Your task to perform on an android device: Open calendar and show me the second week of next month Image 0: 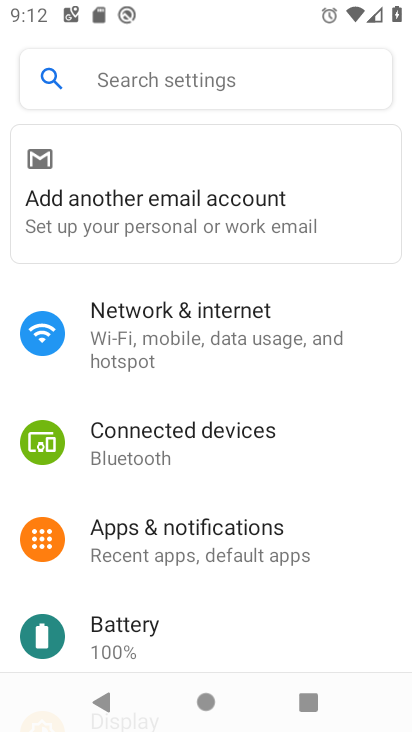
Step 0: press home button
Your task to perform on an android device: Open calendar and show me the second week of next month Image 1: 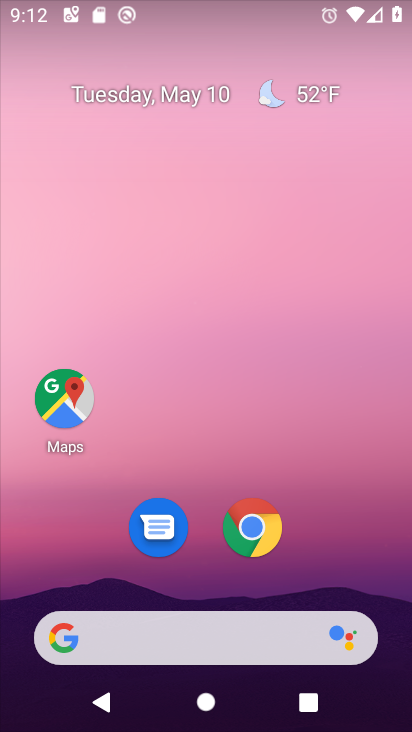
Step 1: drag from (321, 554) to (117, 148)
Your task to perform on an android device: Open calendar and show me the second week of next month Image 2: 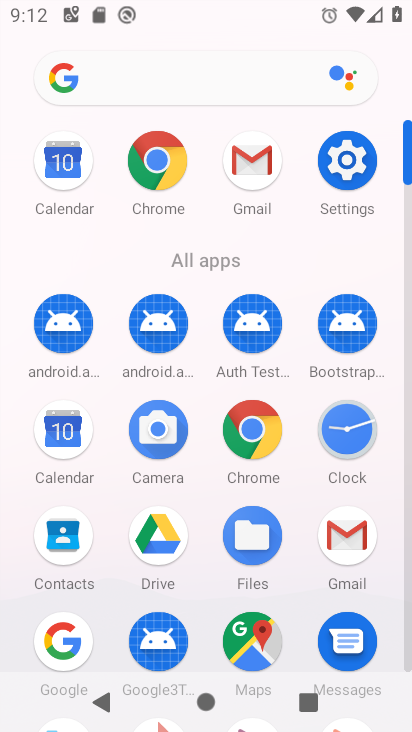
Step 2: click (61, 179)
Your task to perform on an android device: Open calendar and show me the second week of next month Image 3: 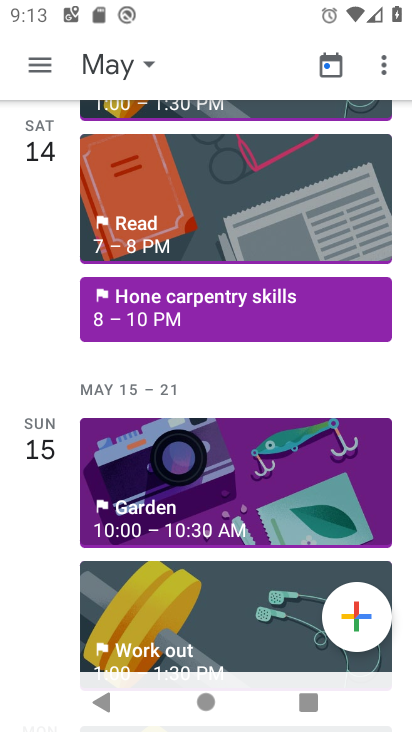
Step 3: click (132, 69)
Your task to perform on an android device: Open calendar and show me the second week of next month Image 4: 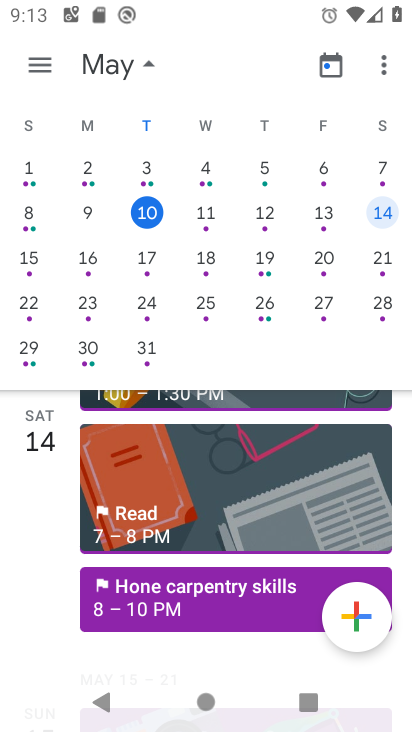
Step 4: drag from (360, 276) to (10, 269)
Your task to perform on an android device: Open calendar and show me the second week of next month Image 5: 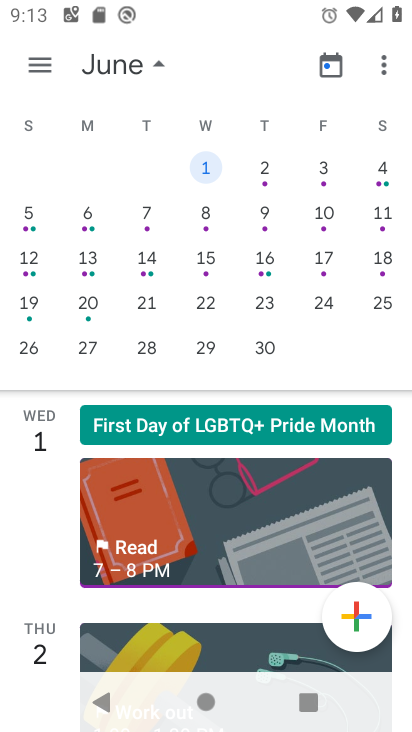
Step 5: click (29, 213)
Your task to perform on an android device: Open calendar and show me the second week of next month Image 6: 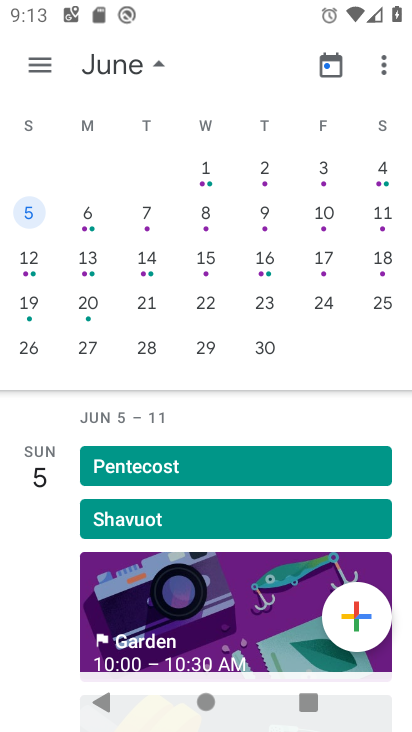
Step 6: click (41, 65)
Your task to perform on an android device: Open calendar and show me the second week of next month Image 7: 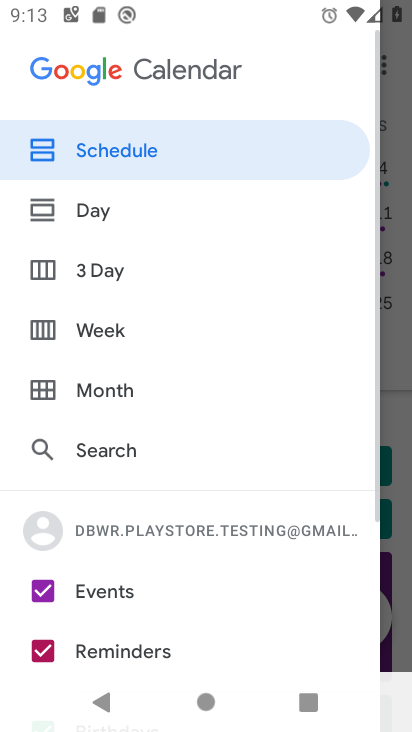
Step 7: click (84, 329)
Your task to perform on an android device: Open calendar and show me the second week of next month Image 8: 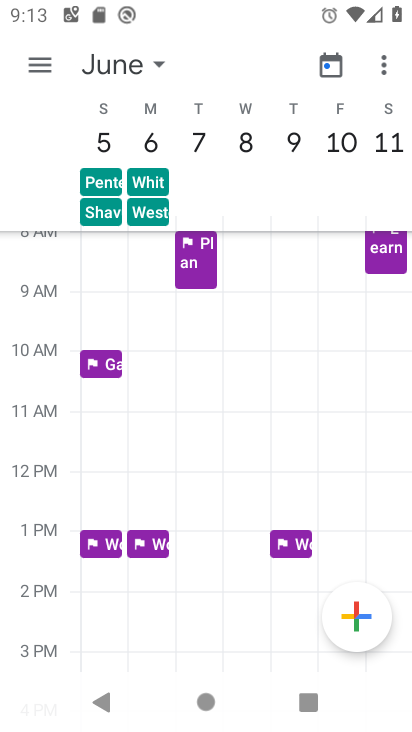
Step 8: task complete